Your task to perform on an android device: Go to Android settings Image 0: 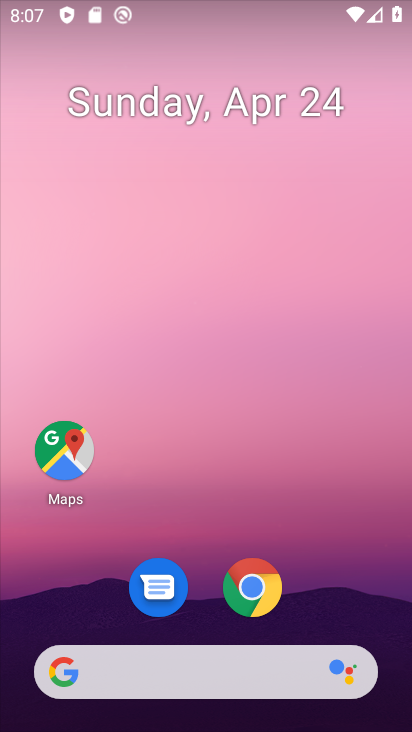
Step 0: drag from (353, 558) to (347, 65)
Your task to perform on an android device: Go to Android settings Image 1: 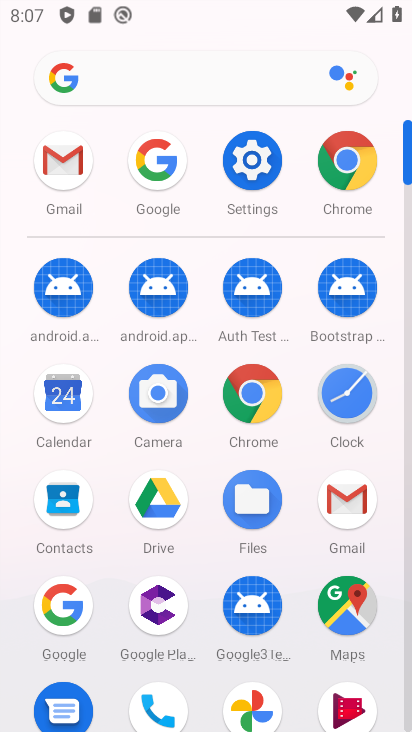
Step 1: click (237, 144)
Your task to perform on an android device: Go to Android settings Image 2: 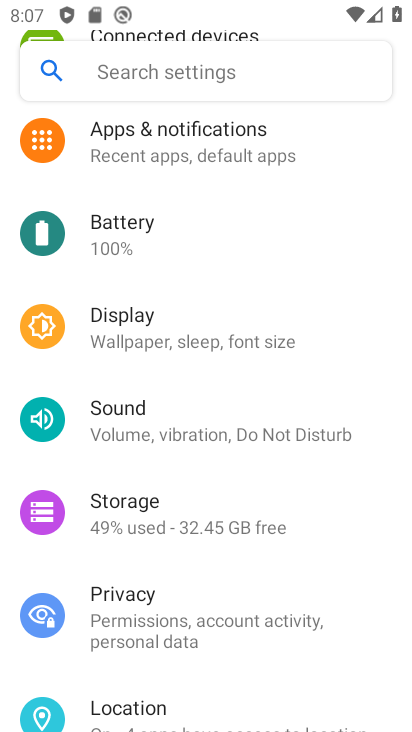
Step 2: task complete